Your task to perform on an android device: Open calendar and show me the second week of next month Image 0: 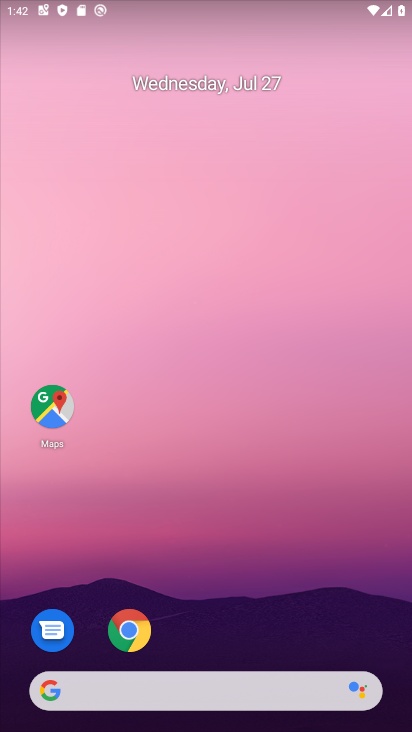
Step 0: drag from (391, 644) to (344, 128)
Your task to perform on an android device: Open calendar and show me the second week of next month Image 1: 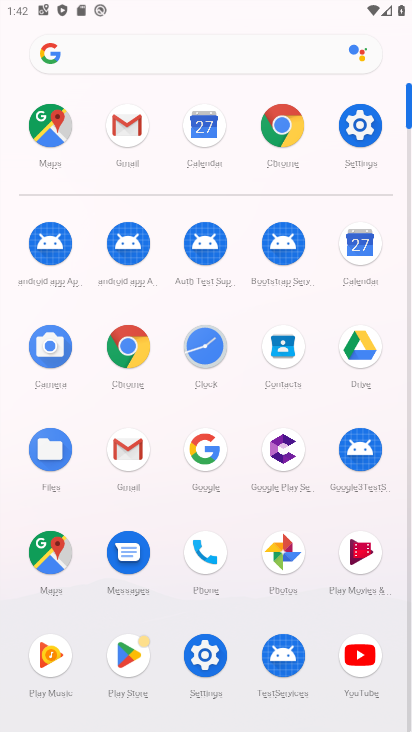
Step 1: click (362, 243)
Your task to perform on an android device: Open calendar and show me the second week of next month Image 2: 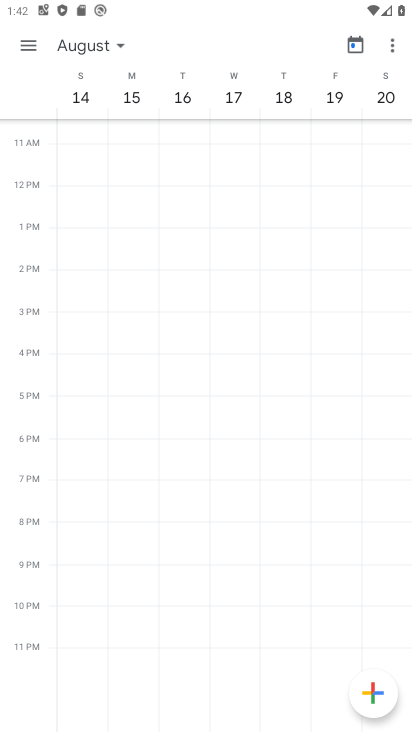
Step 2: click (116, 44)
Your task to perform on an android device: Open calendar and show me the second week of next month Image 3: 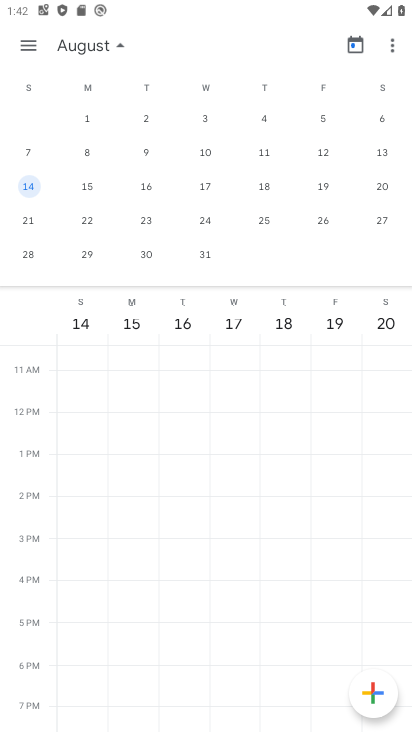
Step 3: task complete